Your task to perform on an android device: Check the weather Image 0: 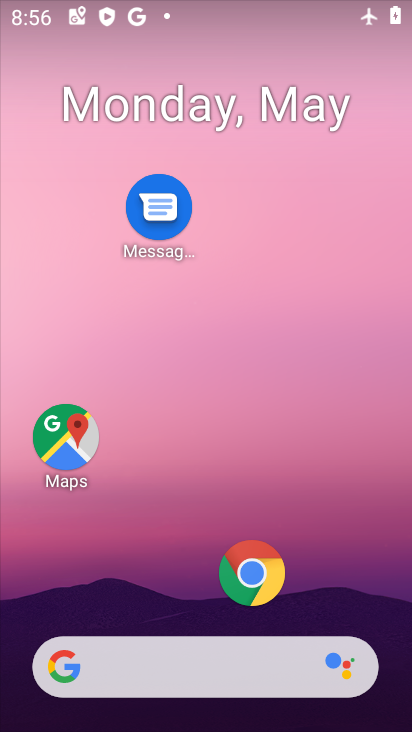
Step 0: drag from (198, 565) to (257, 138)
Your task to perform on an android device: Check the weather Image 1: 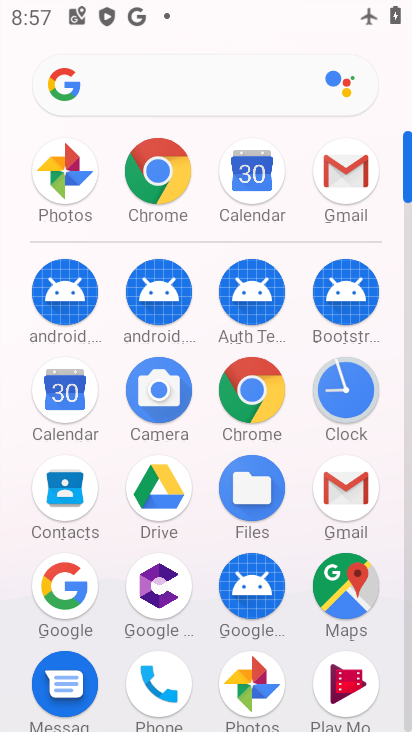
Step 1: click (74, 585)
Your task to perform on an android device: Check the weather Image 2: 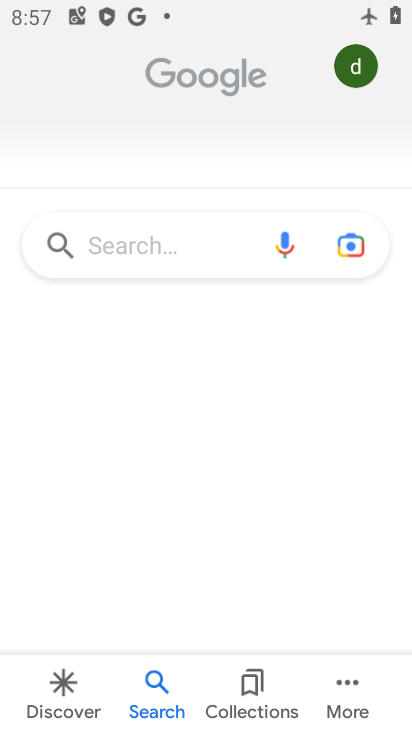
Step 2: click (125, 256)
Your task to perform on an android device: Check the weather Image 3: 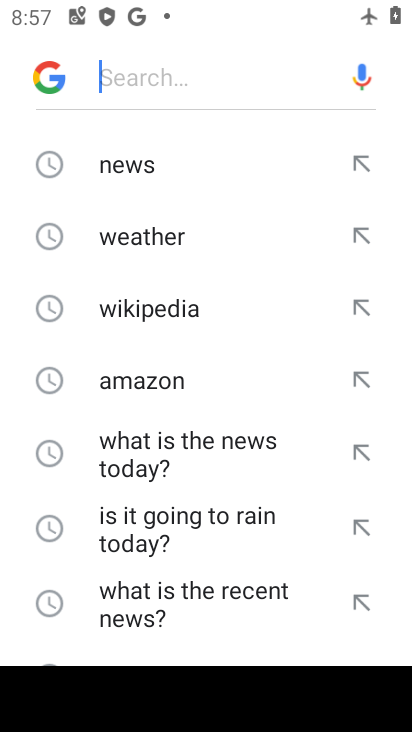
Step 3: click (165, 236)
Your task to perform on an android device: Check the weather Image 4: 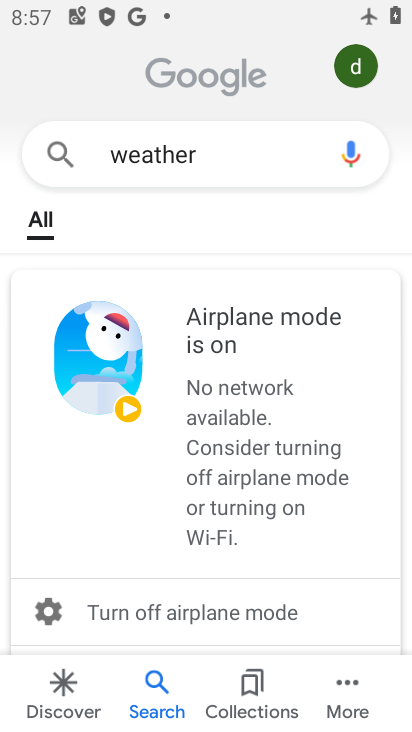
Step 4: task complete